Your task to perform on an android device: set the timer Image 0: 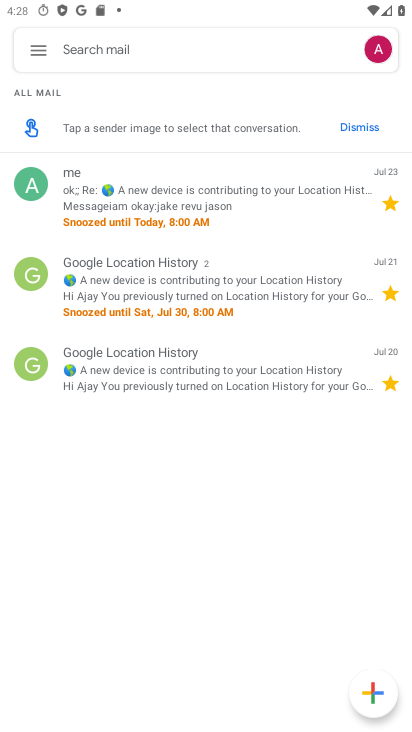
Step 0: press home button
Your task to perform on an android device: set the timer Image 1: 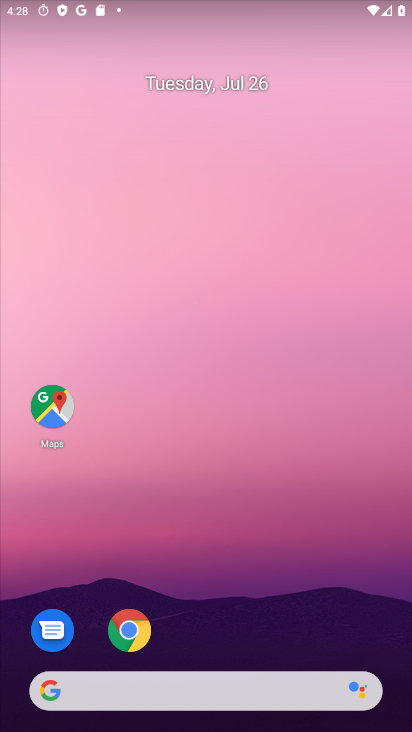
Step 1: drag from (257, 621) to (208, 102)
Your task to perform on an android device: set the timer Image 2: 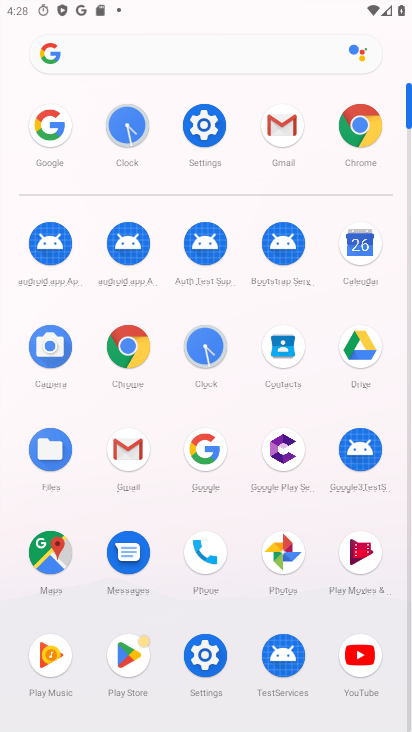
Step 2: click (203, 347)
Your task to perform on an android device: set the timer Image 3: 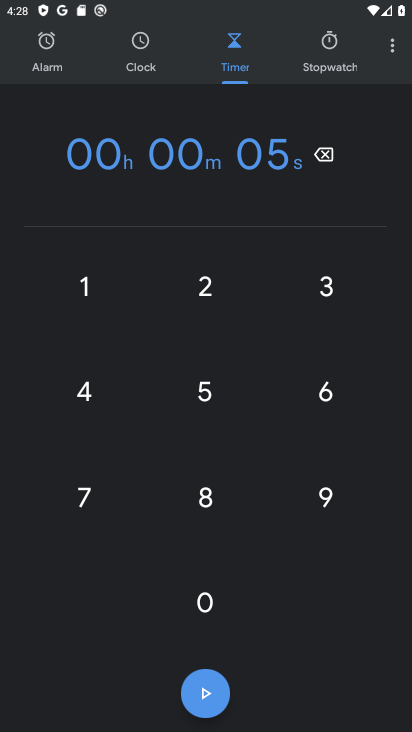
Step 3: task complete